Your task to perform on an android device: Open Wikipedia Image 0: 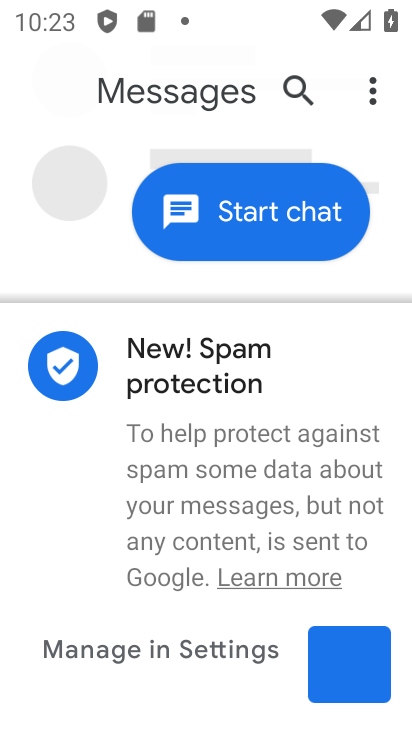
Step 0: press home button
Your task to perform on an android device: Open Wikipedia Image 1: 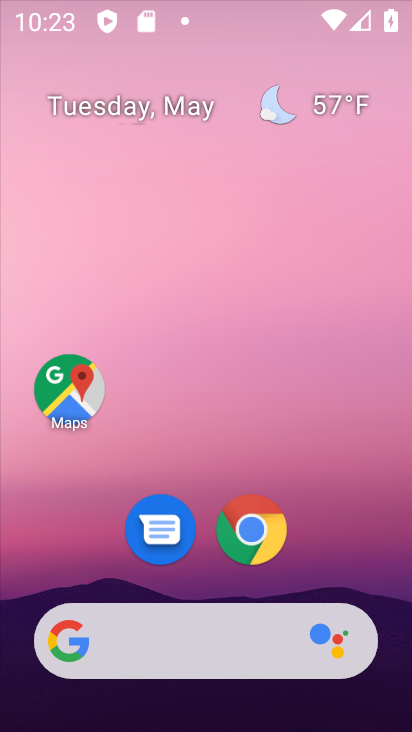
Step 1: press home button
Your task to perform on an android device: Open Wikipedia Image 2: 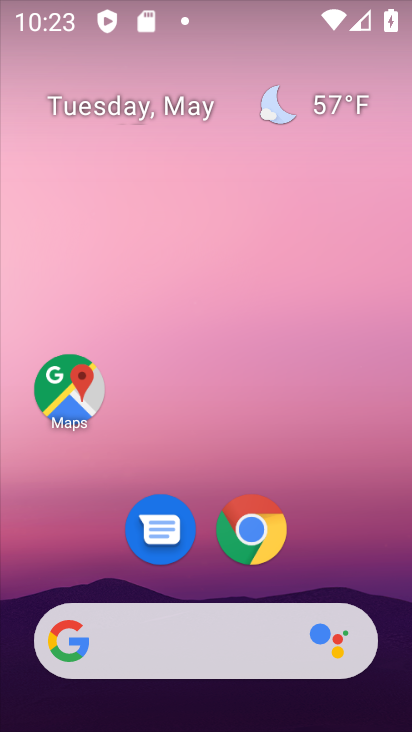
Step 2: click (260, 535)
Your task to perform on an android device: Open Wikipedia Image 3: 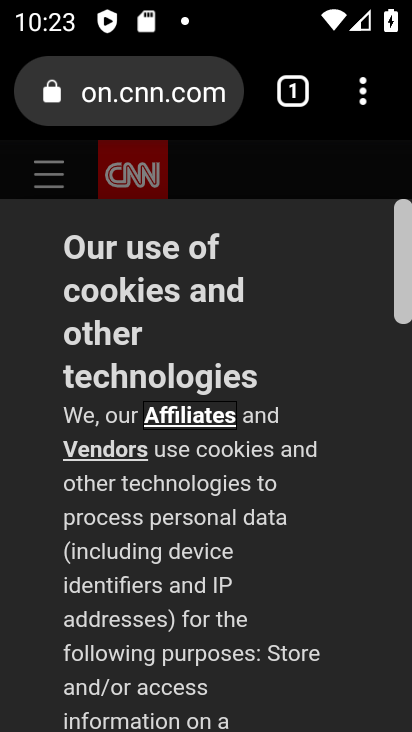
Step 3: click (140, 91)
Your task to perform on an android device: Open Wikipedia Image 4: 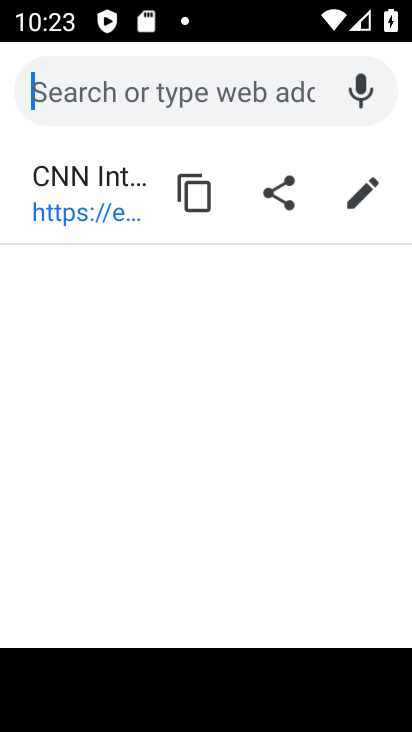
Step 4: press home button
Your task to perform on an android device: Open Wikipedia Image 5: 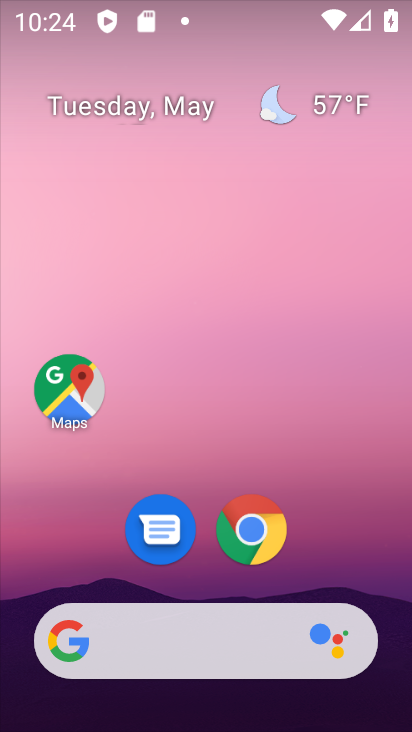
Step 5: click (249, 534)
Your task to perform on an android device: Open Wikipedia Image 6: 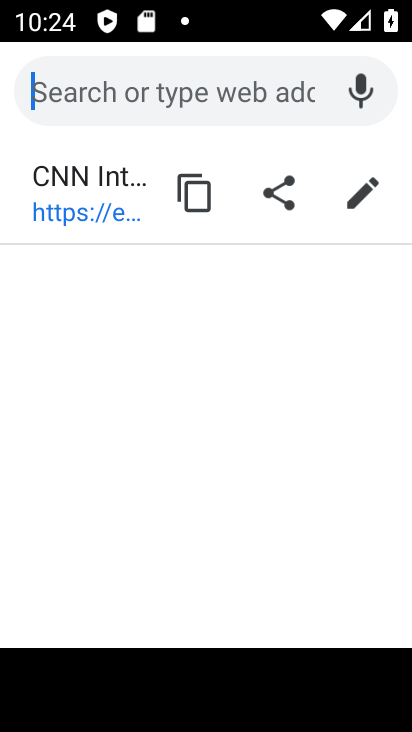
Step 6: press home button
Your task to perform on an android device: Open Wikipedia Image 7: 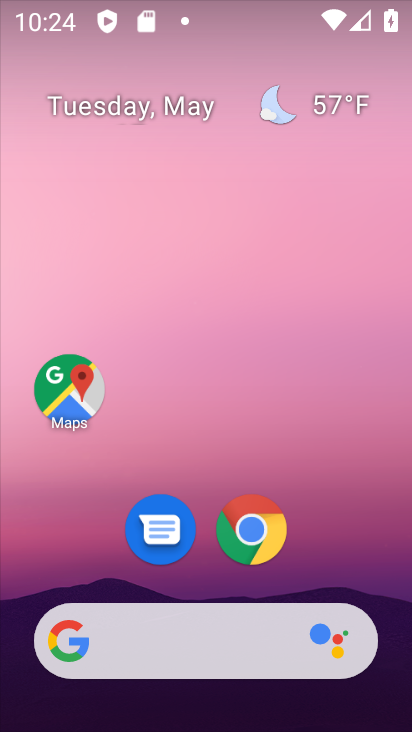
Step 7: click (256, 541)
Your task to perform on an android device: Open Wikipedia Image 8: 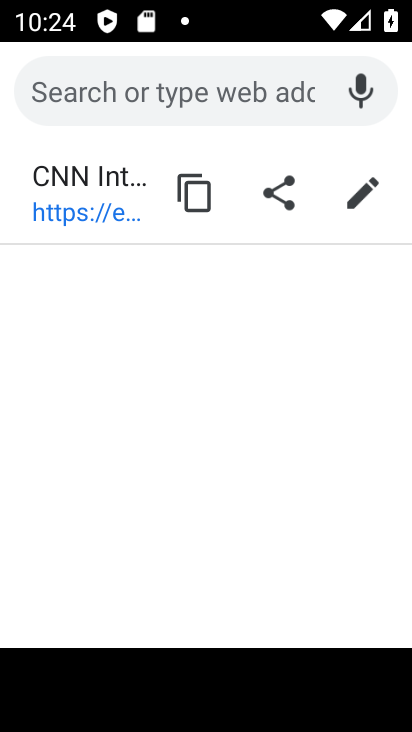
Step 8: press home button
Your task to perform on an android device: Open Wikipedia Image 9: 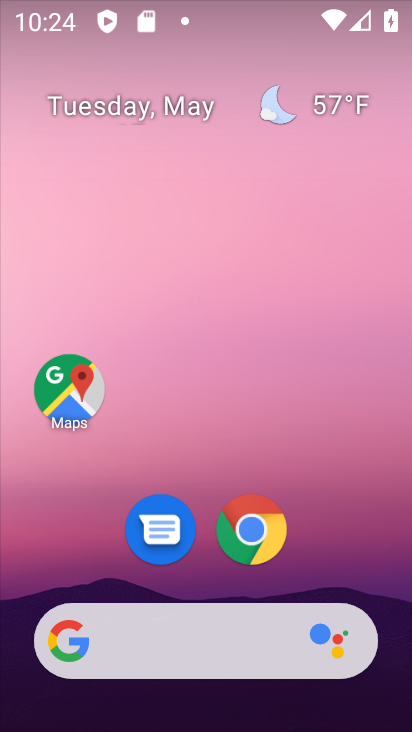
Step 9: click (239, 530)
Your task to perform on an android device: Open Wikipedia Image 10: 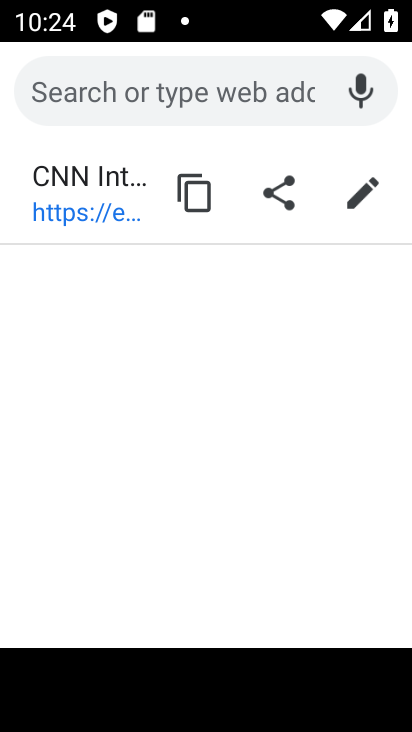
Step 10: task complete